Your task to perform on an android device: Open network settings Image 0: 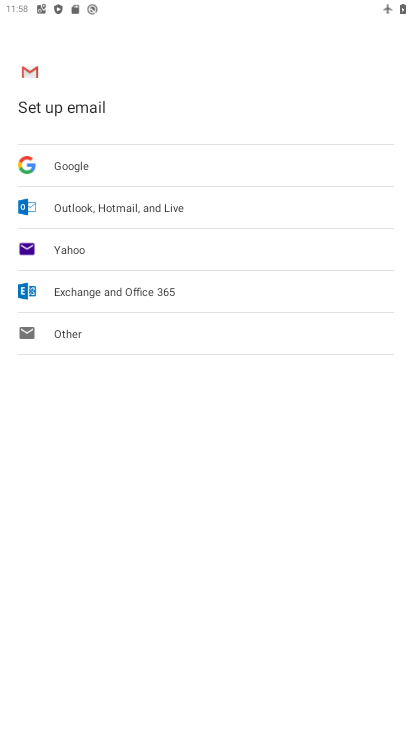
Step 0: press home button
Your task to perform on an android device: Open network settings Image 1: 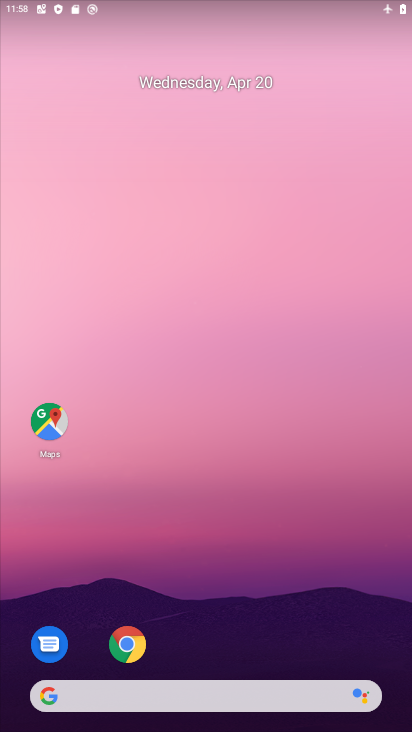
Step 1: drag from (325, 609) to (306, 168)
Your task to perform on an android device: Open network settings Image 2: 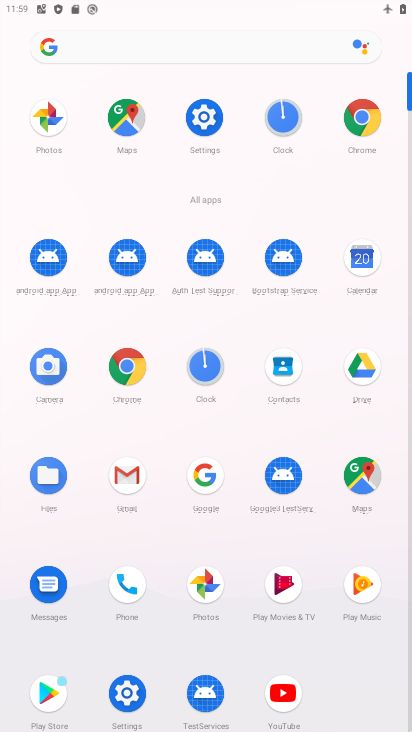
Step 2: click (123, 688)
Your task to perform on an android device: Open network settings Image 3: 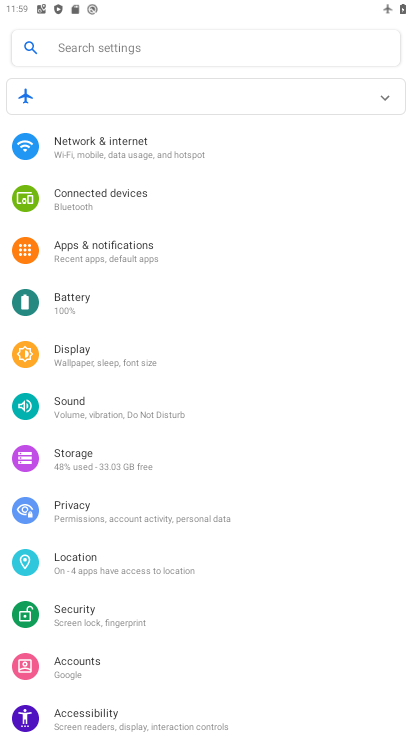
Step 3: click (90, 146)
Your task to perform on an android device: Open network settings Image 4: 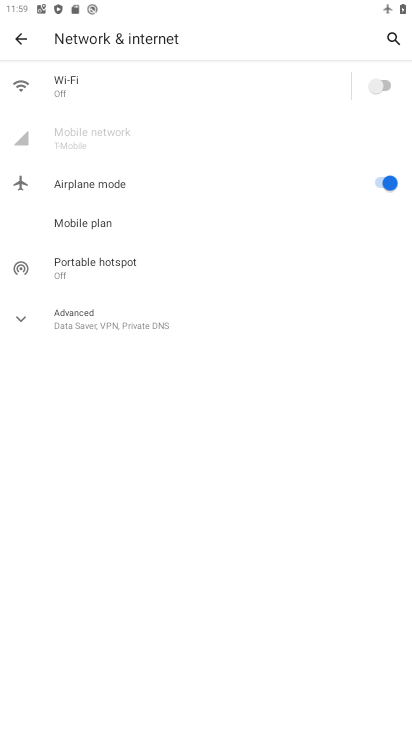
Step 4: click (63, 84)
Your task to perform on an android device: Open network settings Image 5: 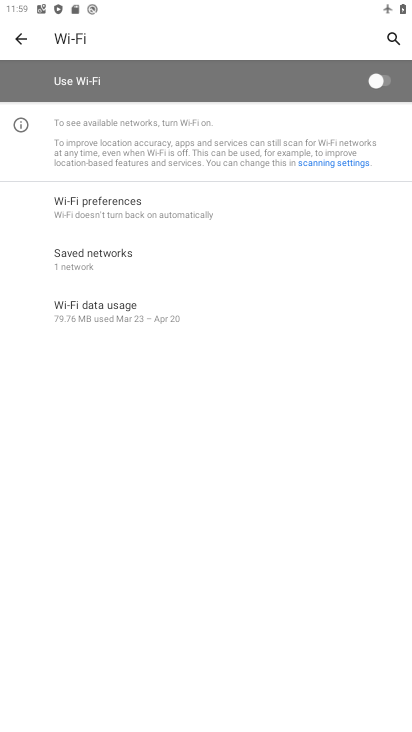
Step 5: task complete